Your task to perform on an android device: turn on translation in the chrome app Image 0: 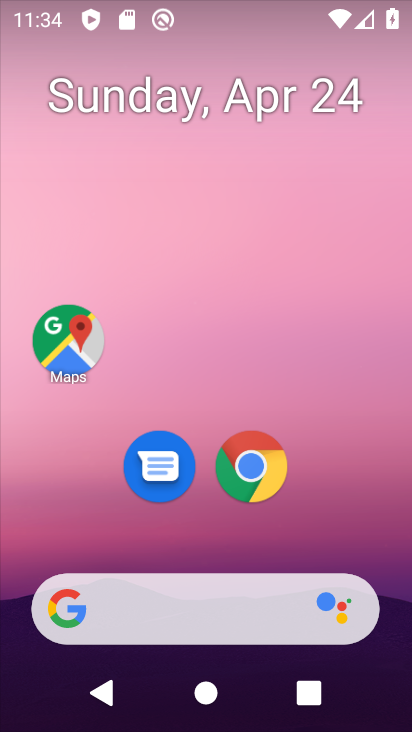
Step 0: drag from (348, 538) to (243, 98)
Your task to perform on an android device: turn on translation in the chrome app Image 1: 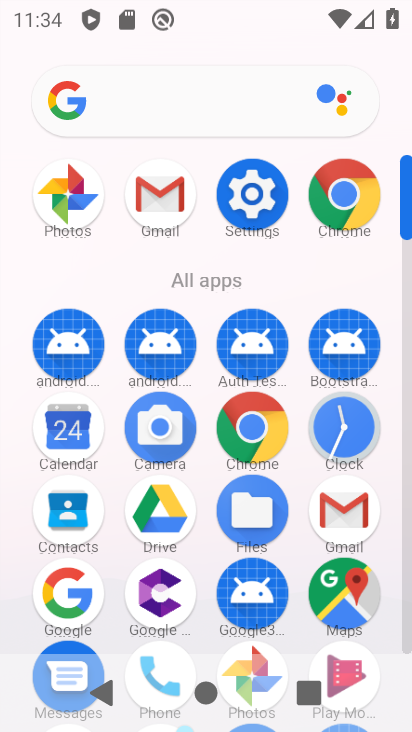
Step 1: click (321, 202)
Your task to perform on an android device: turn on translation in the chrome app Image 2: 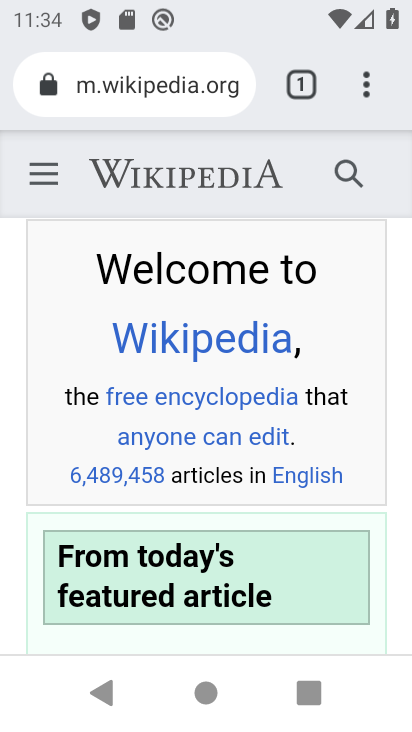
Step 2: drag from (330, 639) to (290, 621)
Your task to perform on an android device: turn on translation in the chrome app Image 3: 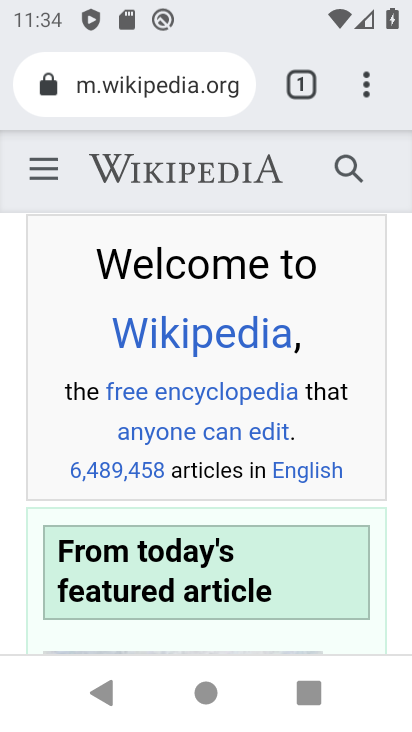
Step 3: click (377, 83)
Your task to perform on an android device: turn on translation in the chrome app Image 4: 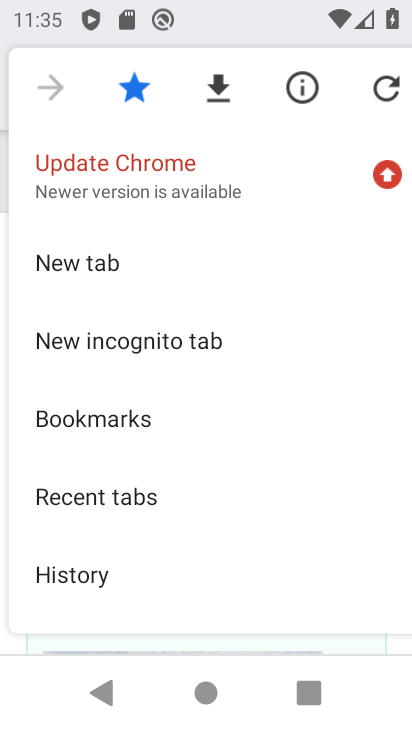
Step 4: drag from (204, 542) to (140, 85)
Your task to perform on an android device: turn on translation in the chrome app Image 5: 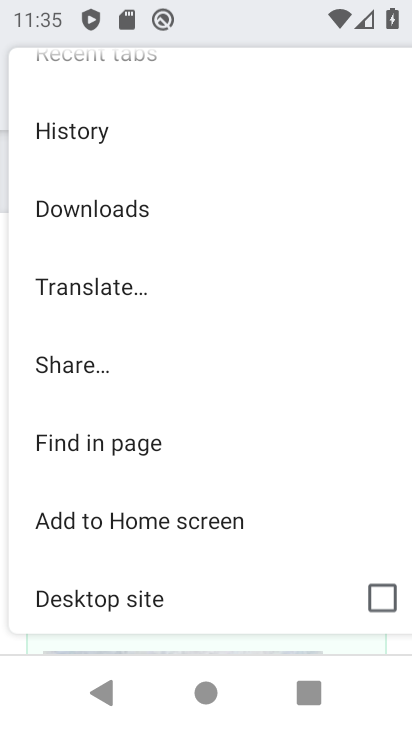
Step 5: drag from (197, 571) to (167, 231)
Your task to perform on an android device: turn on translation in the chrome app Image 6: 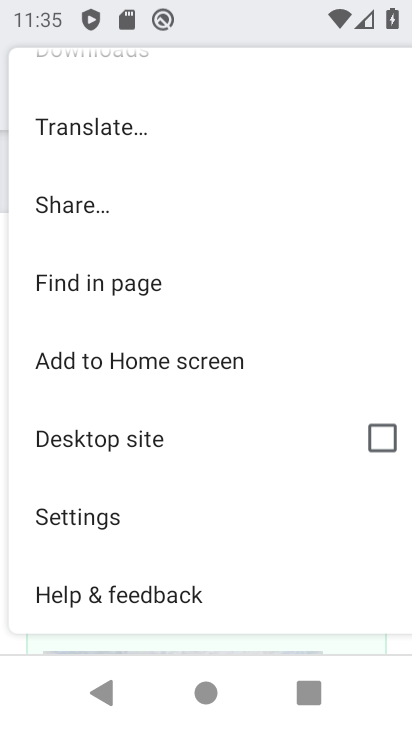
Step 6: click (119, 502)
Your task to perform on an android device: turn on translation in the chrome app Image 7: 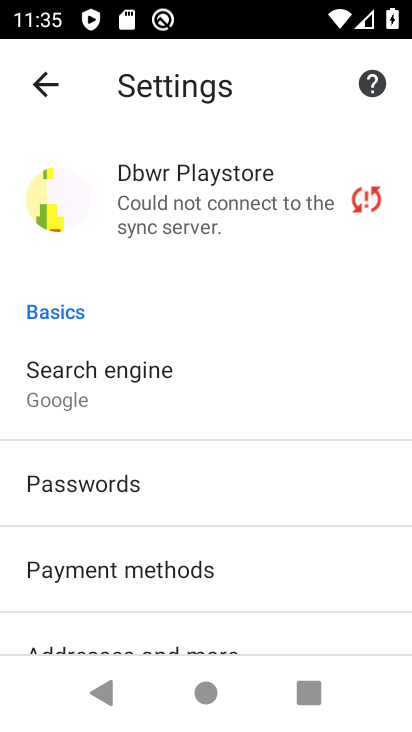
Step 7: drag from (172, 576) to (121, 148)
Your task to perform on an android device: turn on translation in the chrome app Image 8: 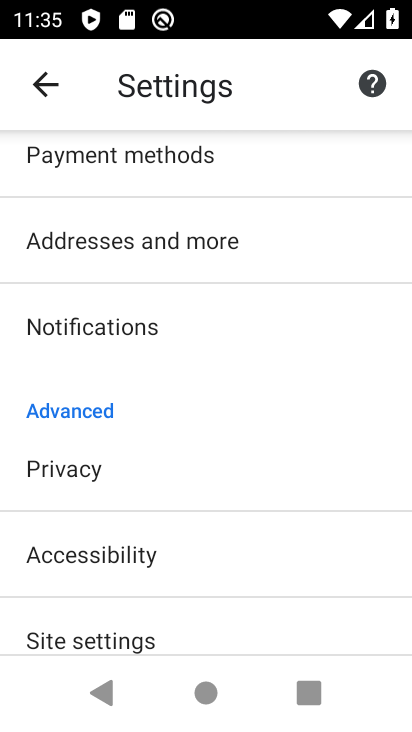
Step 8: drag from (175, 637) to (140, 228)
Your task to perform on an android device: turn on translation in the chrome app Image 9: 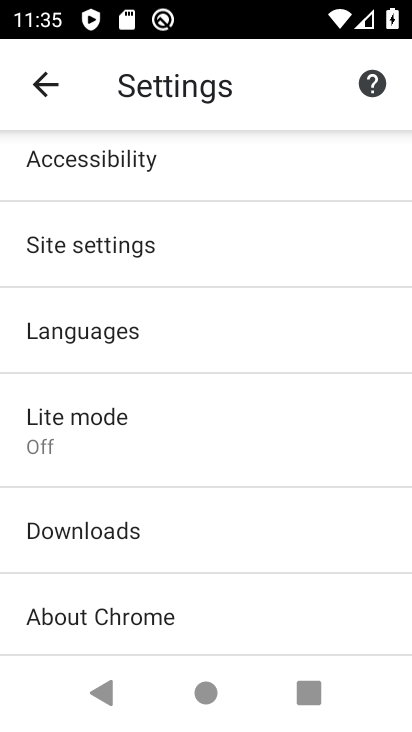
Step 9: drag from (180, 623) to (156, 297)
Your task to perform on an android device: turn on translation in the chrome app Image 10: 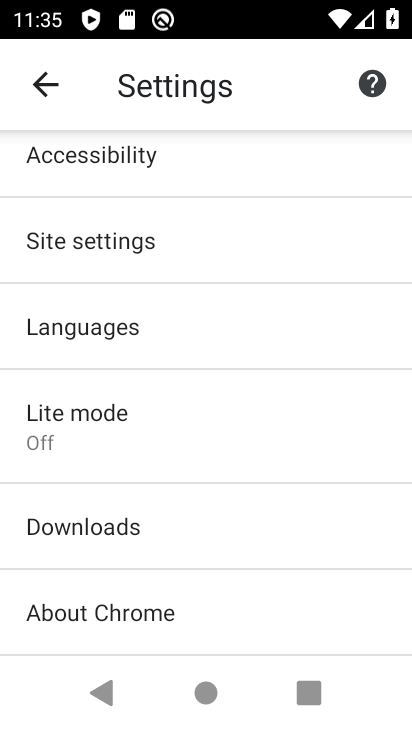
Step 10: click (153, 336)
Your task to perform on an android device: turn on translation in the chrome app Image 11: 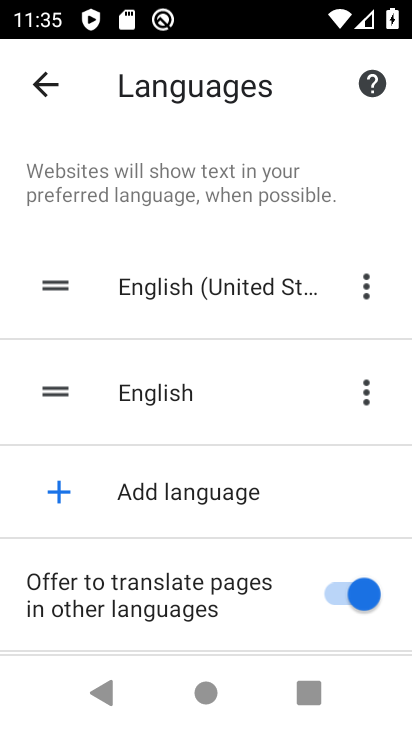
Step 11: task complete